Your task to perform on an android device: Open Amazon Image 0: 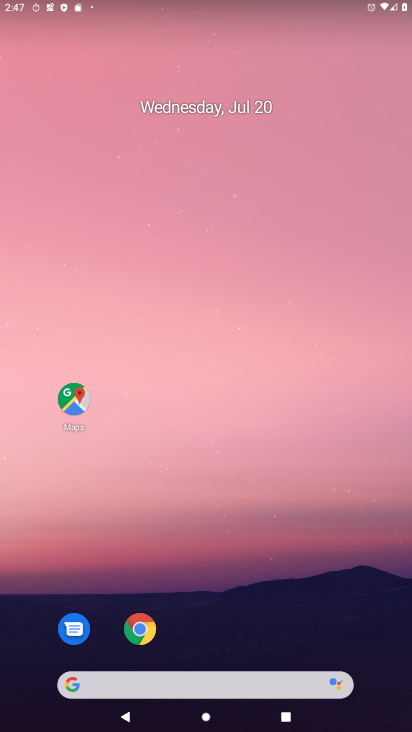
Step 0: press home button
Your task to perform on an android device: Open Amazon Image 1: 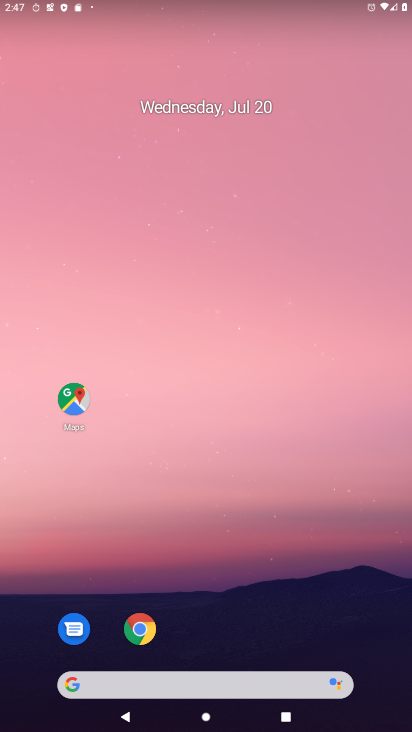
Step 1: click (139, 622)
Your task to perform on an android device: Open Amazon Image 2: 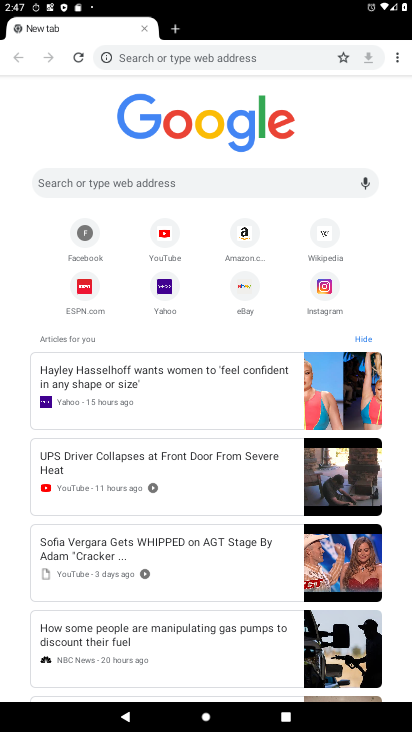
Step 2: click (243, 228)
Your task to perform on an android device: Open Amazon Image 3: 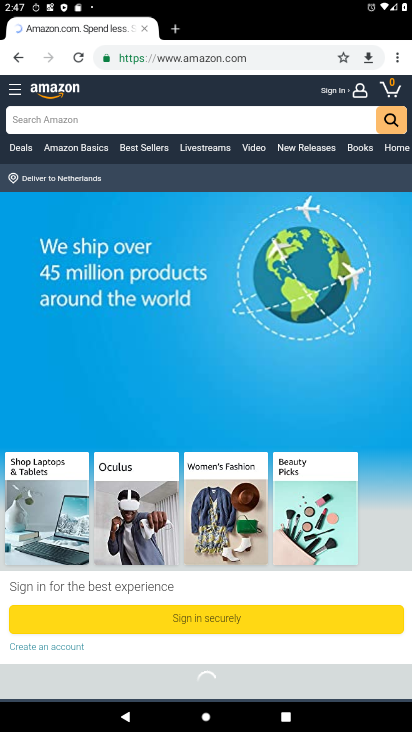
Step 3: task complete